Your task to perform on an android device: Open Google Maps Image 0: 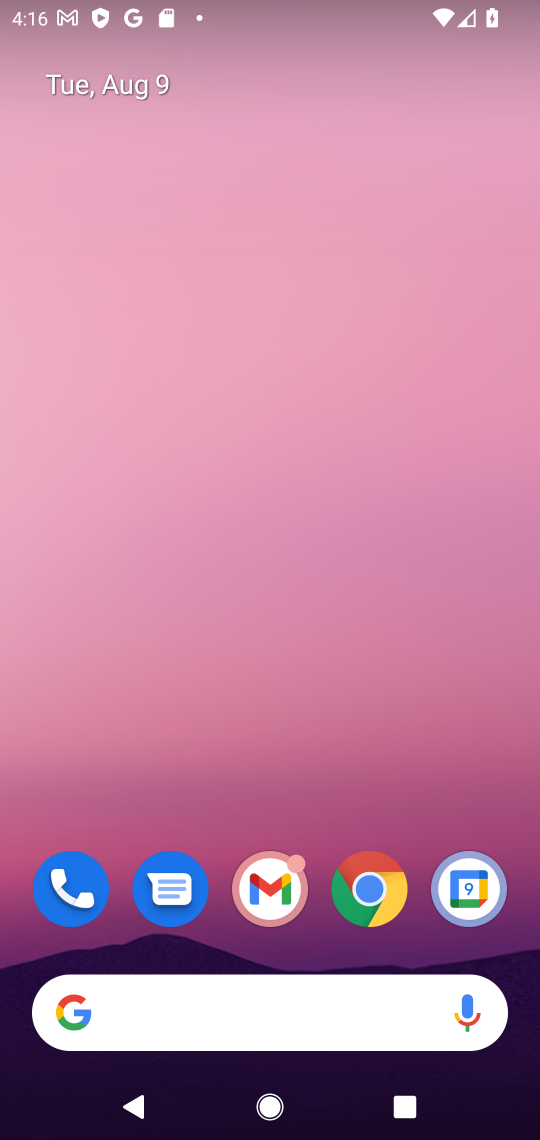
Step 0: drag from (280, 774) to (362, 0)
Your task to perform on an android device: Open Google Maps Image 1: 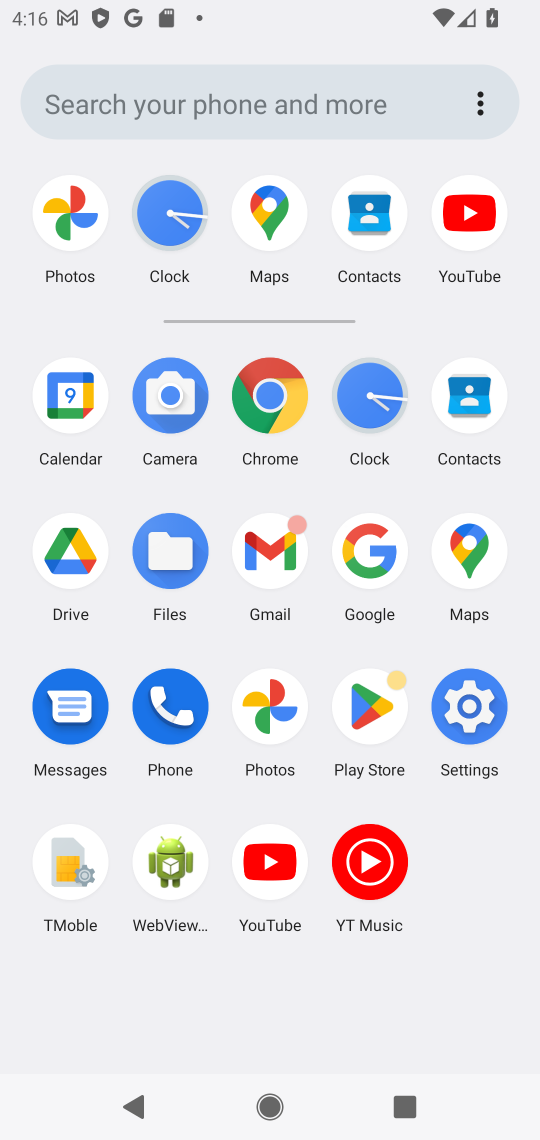
Step 1: click (269, 221)
Your task to perform on an android device: Open Google Maps Image 2: 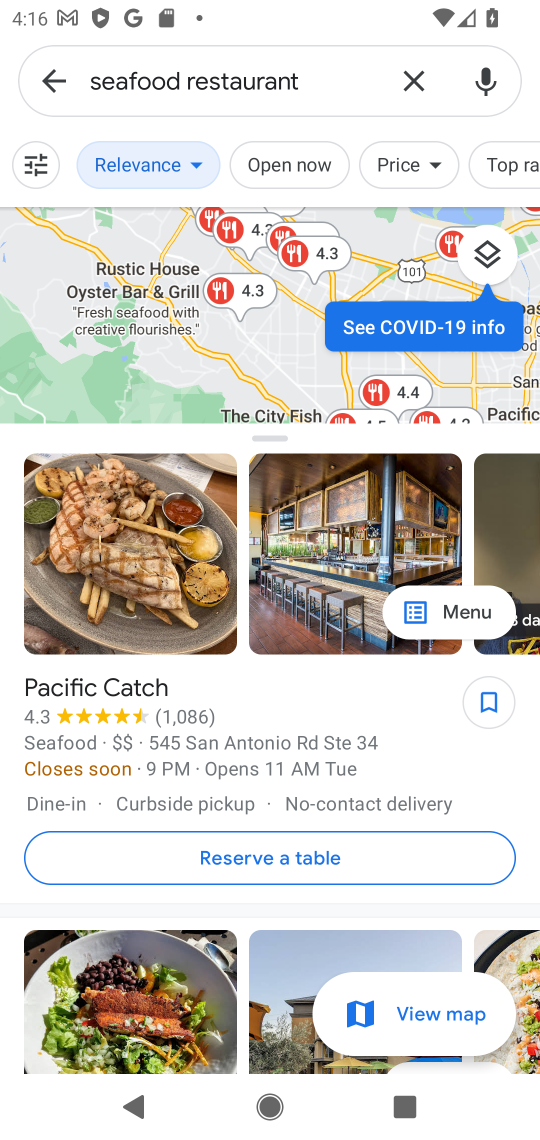
Step 2: click (417, 74)
Your task to perform on an android device: Open Google Maps Image 3: 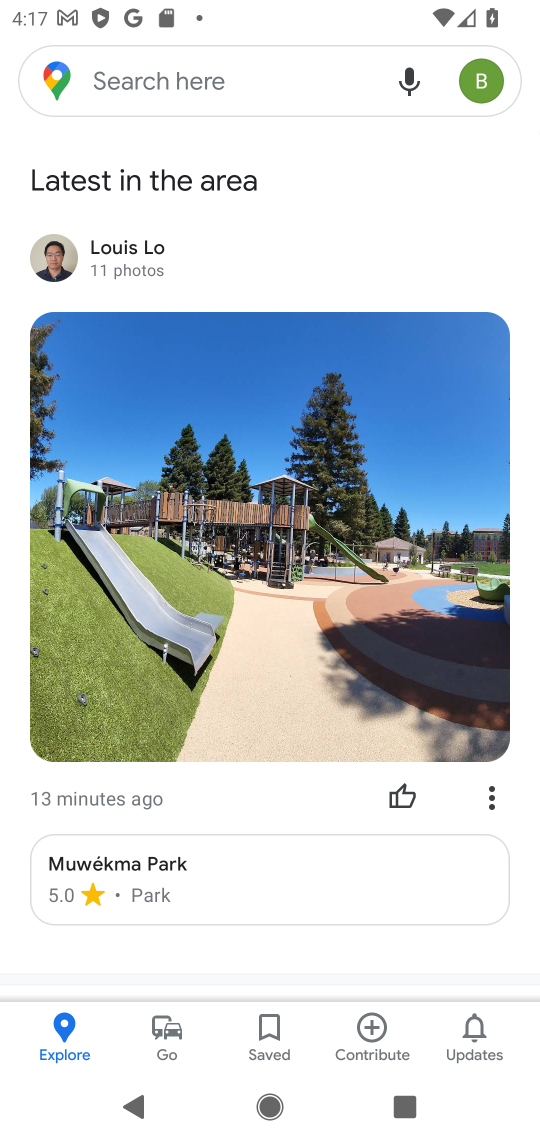
Step 3: task complete